Your task to perform on an android device: all mails in gmail Image 0: 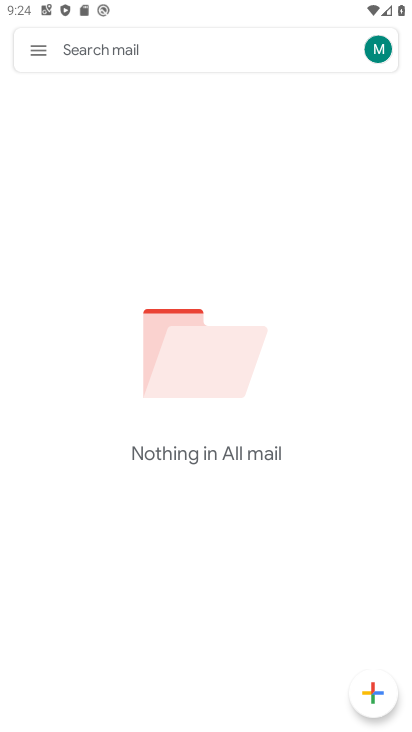
Step 0: press home button
Your task to perform on an android device: all mails in gmail Image 1: 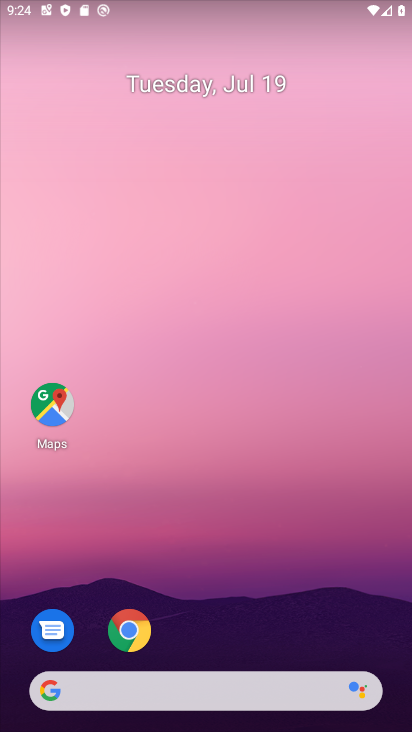
Step 1: drag from (220, 636) to (218, 45)
Your task to perform on an android device: all mails in gmail Image 2: 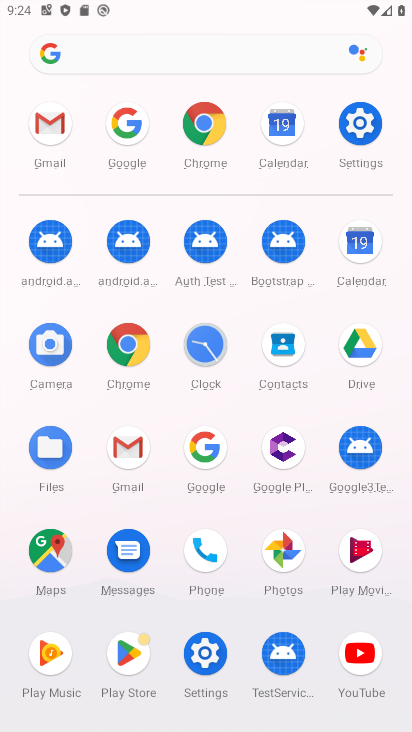
Step 2: click (51, 120)
Your task to perform on an android device: all mails in gmail Image 3: 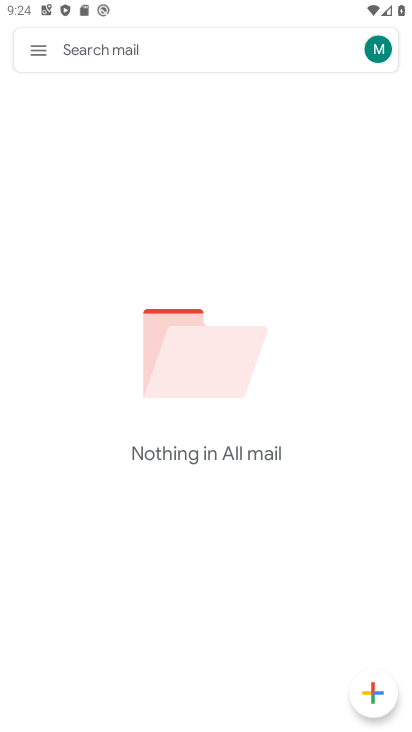
Step 3: task complete